Your task to perform on an android device: Open the map Image 0: 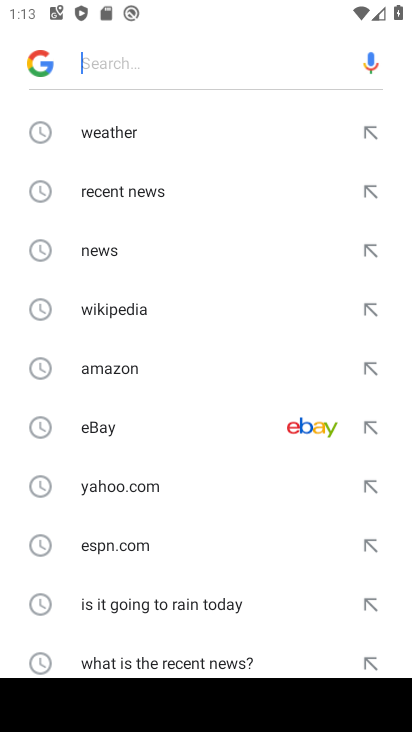
Step 0: press back button
Your task to perform on an android device: Open the map Image 1: 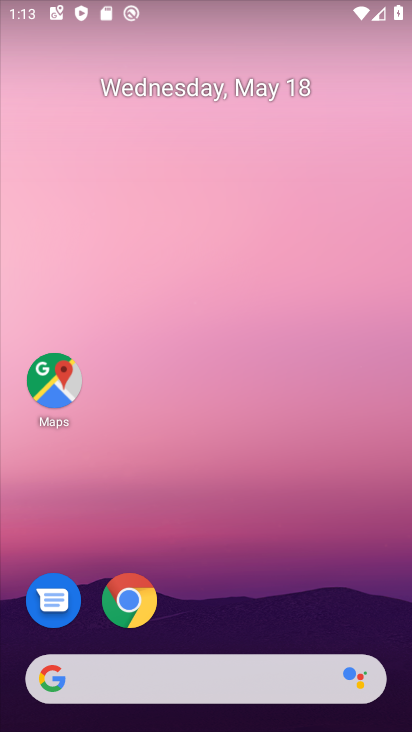
Step 1: click (53, 385)
Your task to perform on an android device: Open the map Image 2: 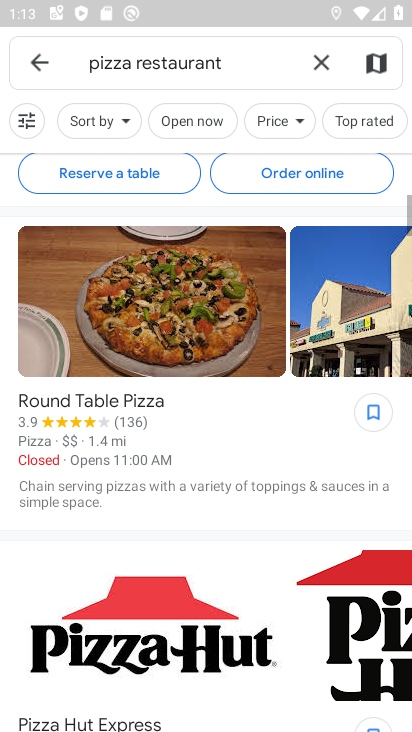
Step 2: click (317, 62)
Your task to perform on an android device: Open the map Image 3: 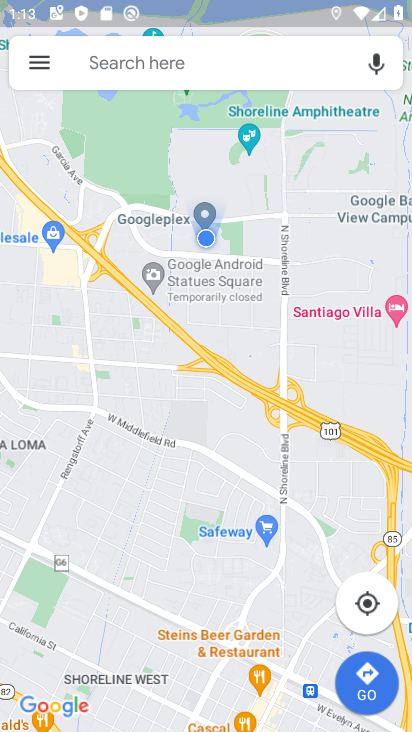
Step 3: task complete